Your task to perform on an android device: When is my next meeting? Image 0: 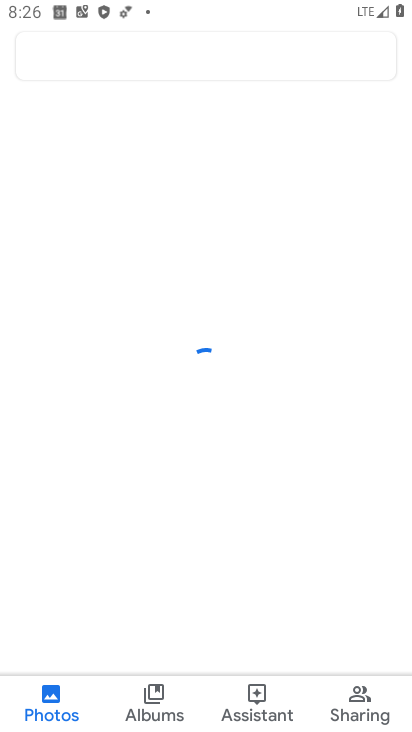
Step 0: press home button
Your task to perform on an android device: When is my next meeting? Image 1: 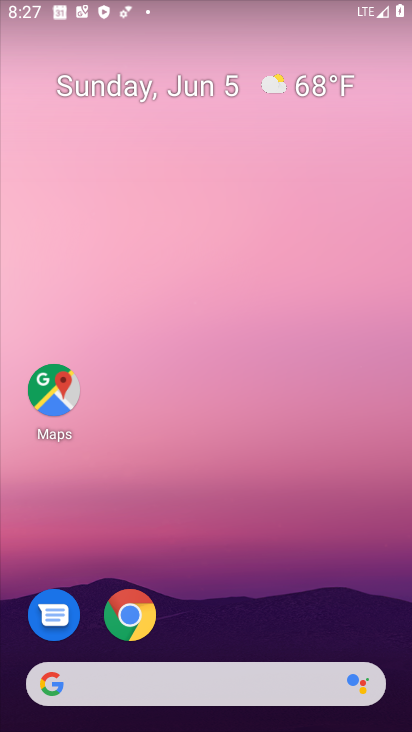
Step 1: drag from (138, 685) to (133, 128)
Your task to perform on an android device: When is my next meeting? Image 2: 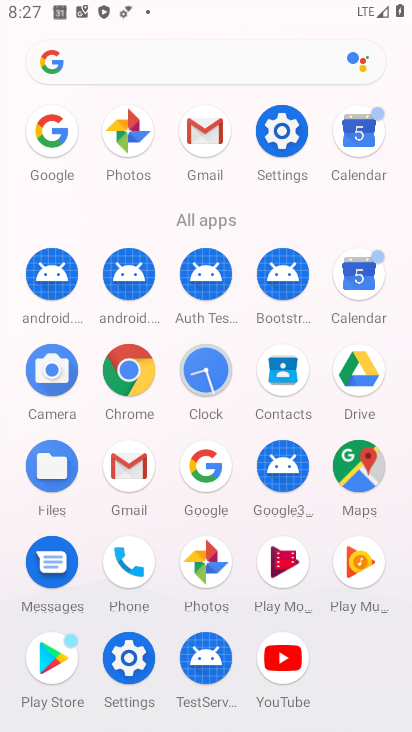
Step 2: click (352, 287)
Your task to perform on an android device: When is my next meeting? Image 3: 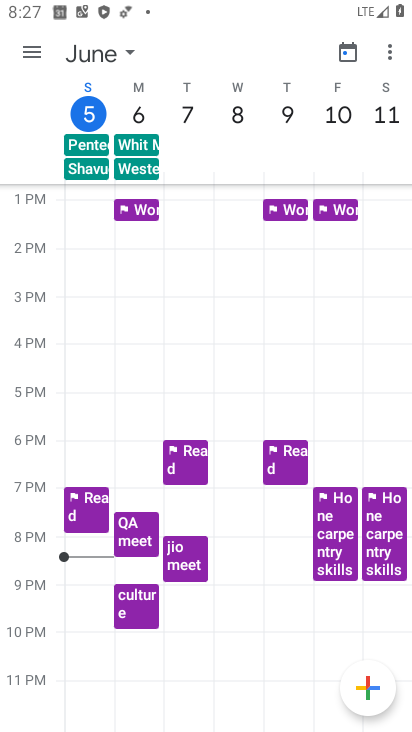
Step 3: click (28, 64)
Your task to perform on an android device: When is my next meeting? Image 4: 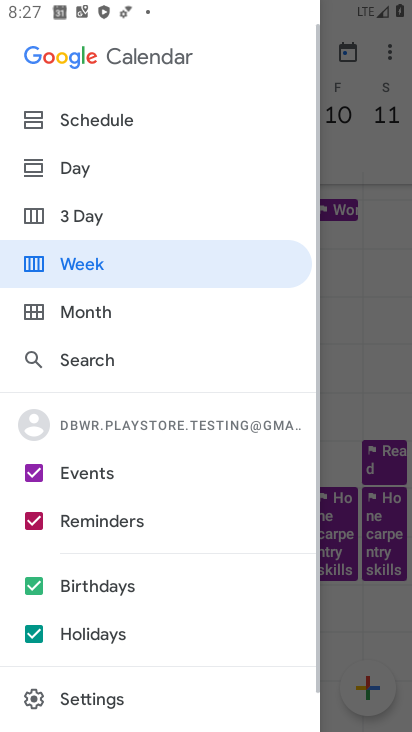
Step 4: click (72, 120)
Your task to perform on an android device: When is my next meeting? Image 5: 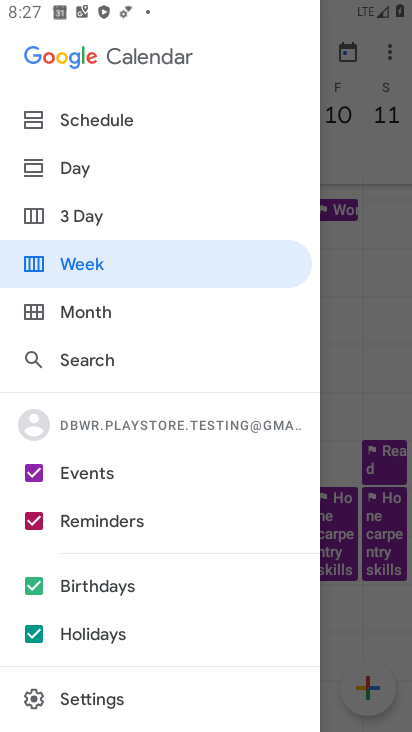
Step 5: click (40, 119)
Your task to perform on an android device: When is my next meeting? Image 6: 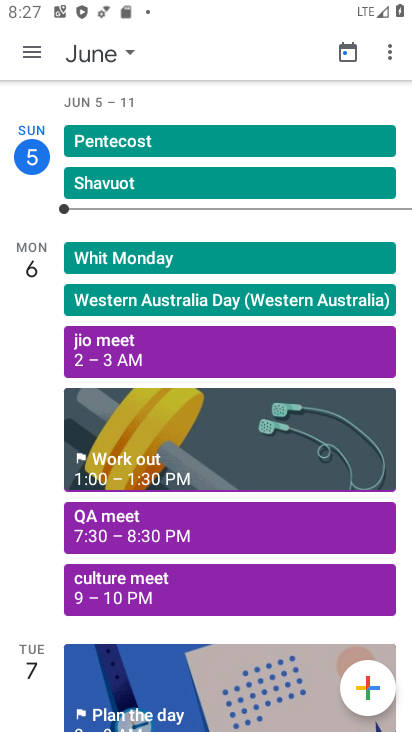
Step 6: task complete